Your task to perform on an android device: Open my contact list Image 0: 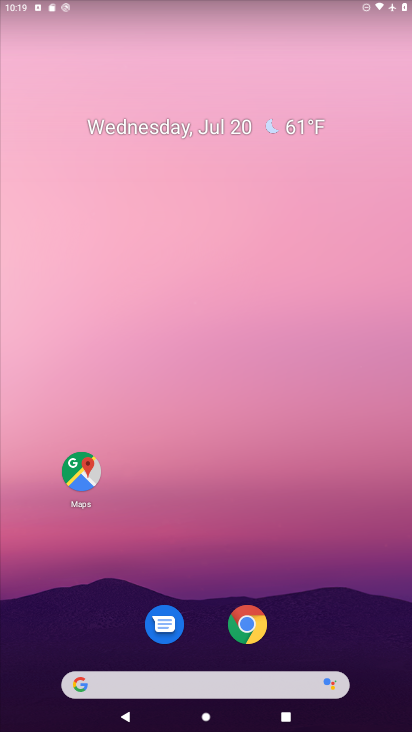
Step 0: drag from (195, 586) to (140, 162)
Your task to perform on an android device: Open my contact list Image 1: 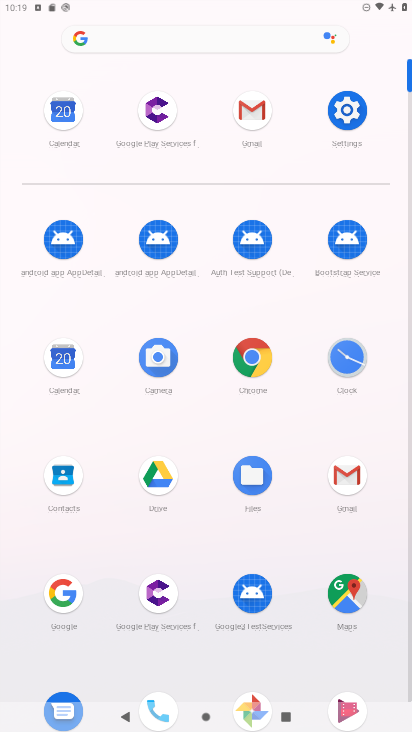
Step 1: click (55, 477)
Your task to perform on an android device: Open my contact list Image 2: 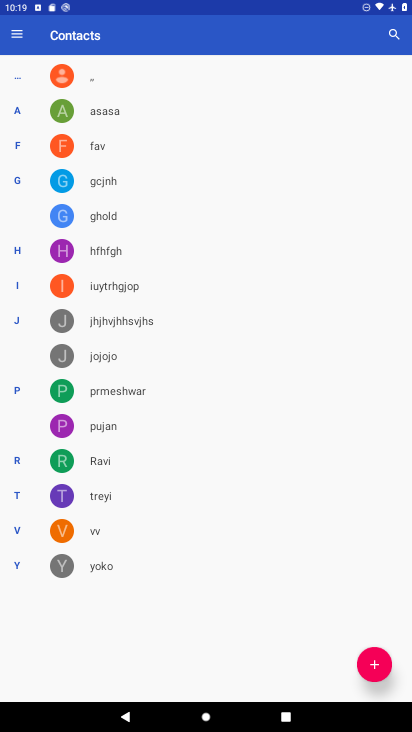
Step 2: task complete